Your task to perform on an android device: find snoozed emails in the gmail app Image 0: 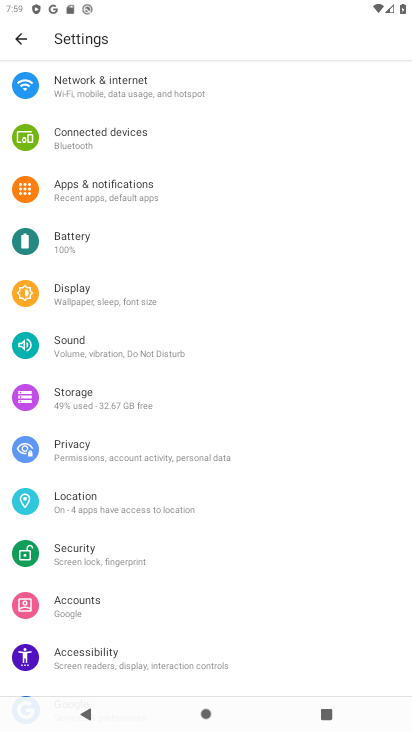
Step 0: press home button
Your task to perform on an android device: find snoozed emails in the gmail app Image 1: 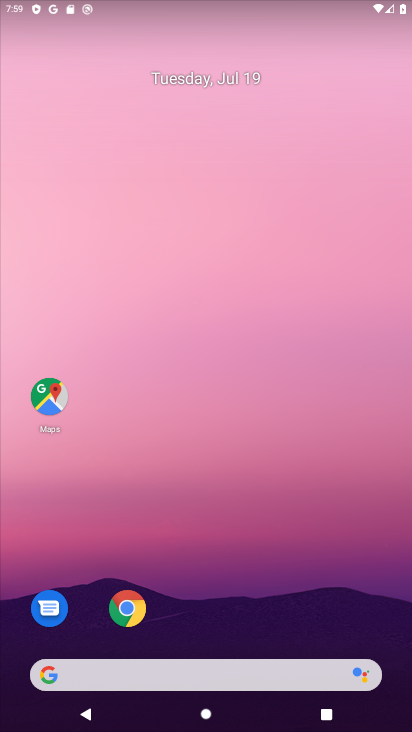
Step 1: drag from (381, 609) to (296, 100)
Your task to perform on an android device: find snoozed emails in the gmail app Image 2: 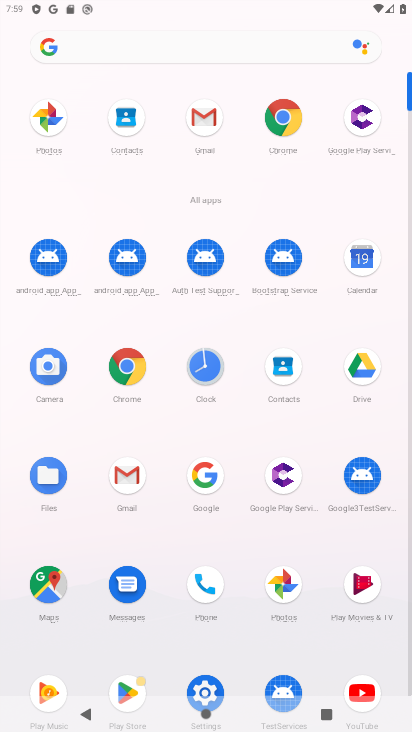
Step 2: click (126, 483)
Your task to perform on an android device: find snoozed emails in the gmail app Image 3: 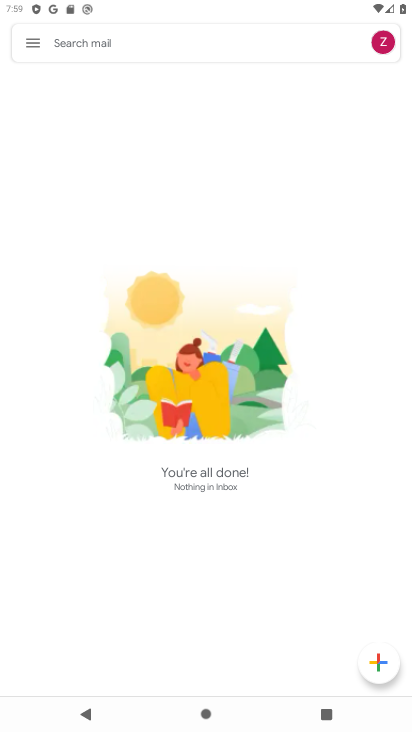
Step 3: click (27, 41)
Your task to perform on an android device: find snoozed emails in the gmail app Image 4: 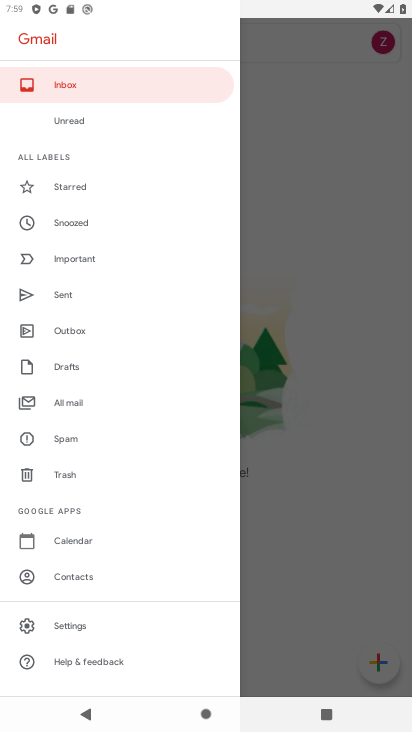
Step 4: click (73, 224)
Your task to perform on an android device: find snoozed emails in the gmail app Image 5: 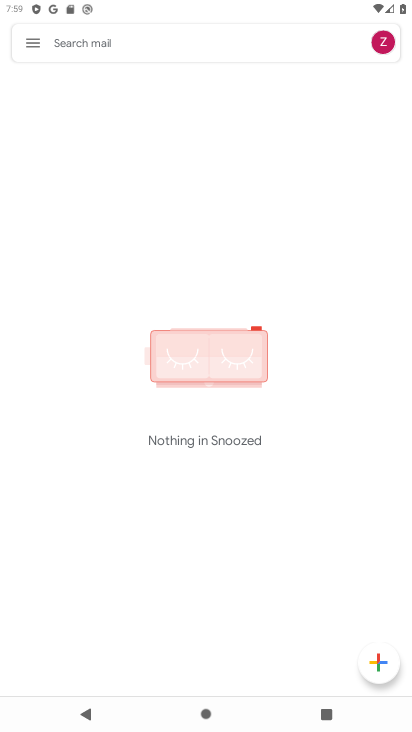
Step 5: task complete